Your task to perform on an android device: Go to network settings Image 0: 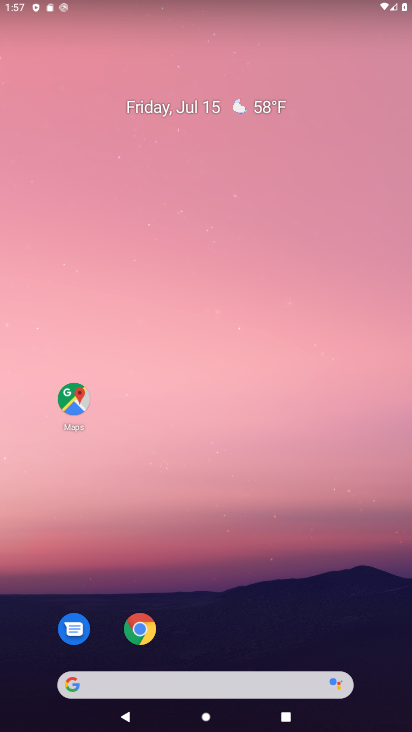
Step 0: drag from (289, 561) to (243, 334)
Your task to perform on an android device: Go to network settings Image 1: 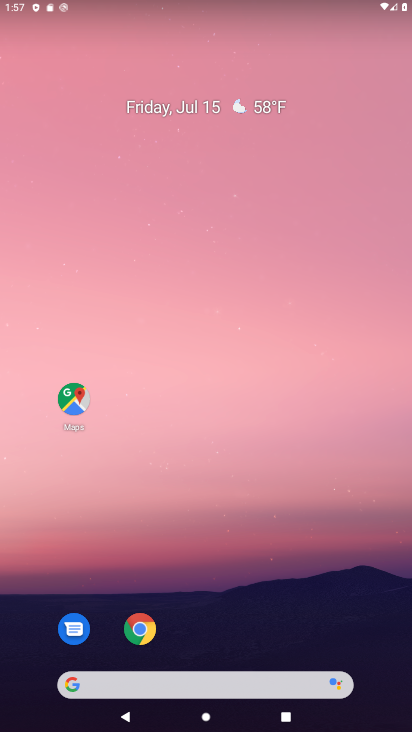
Step 1: drag from (236, 505) to (217, 179)
Your task to perform on an android device: Go to network settings Image 2: 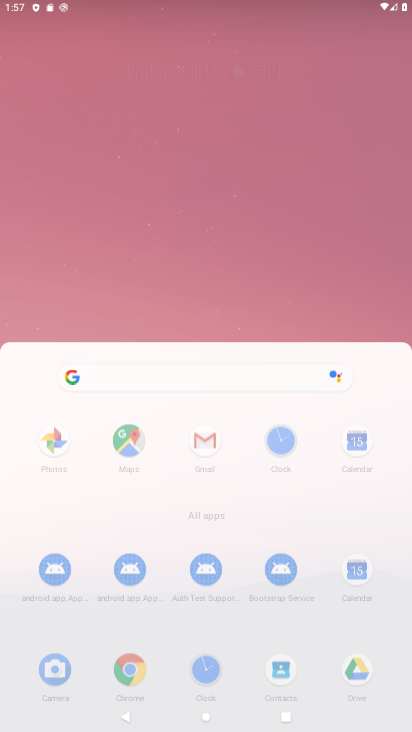
Step 2: drag from (229, 566) to (229, 102)
Your task to perform on an android device: Go to network settings Image 3: 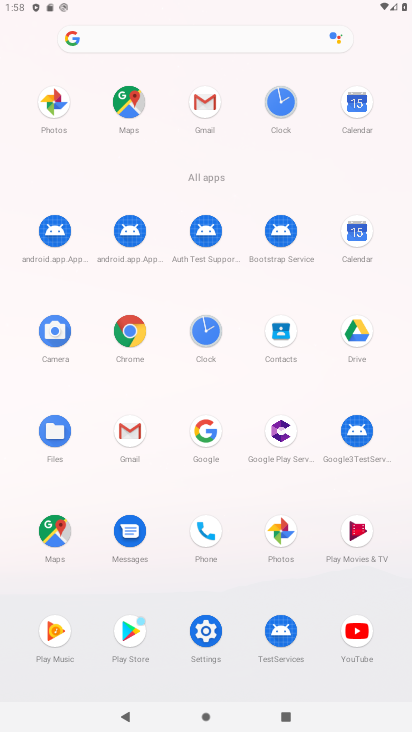
Step 3: click (197, 647)
Your task to perform on an android device: Go to network settings Image 4: 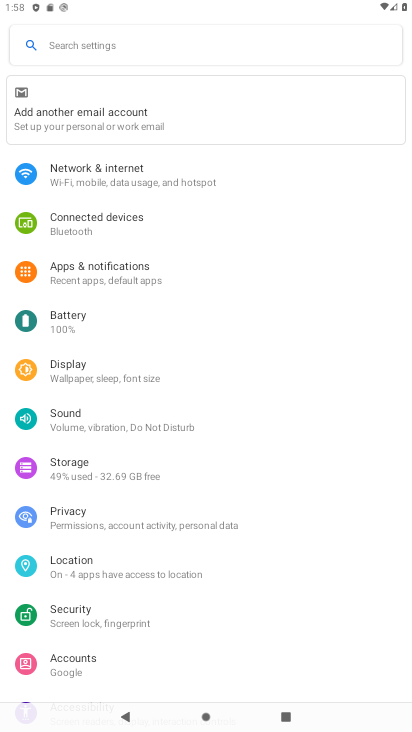
Step 4: click (111, 199)
Your task to perform on an android device: Go to network settings Image 5: 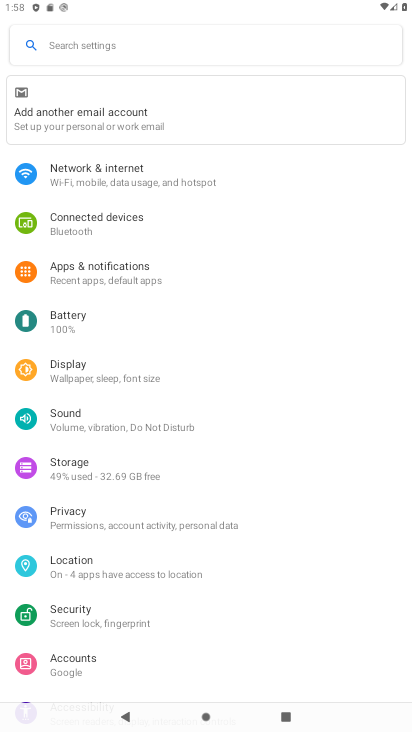
Step 5: task complete